Your task to perform on an android device: check storage Image 0: 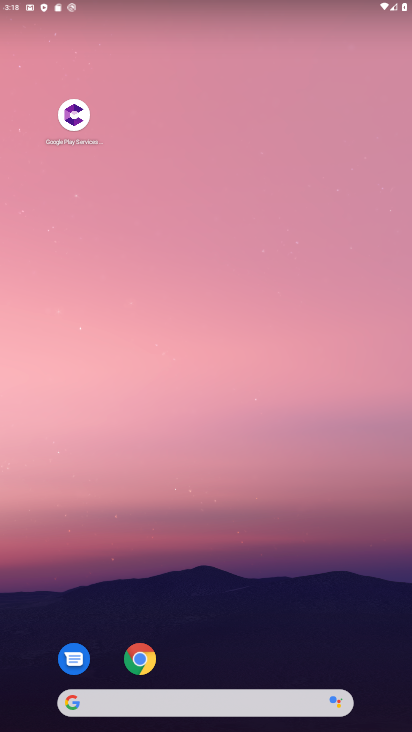
Step 0: drag from (214, 648) to (256, 82)
Your task to perform on an android device: check storage Image 1: 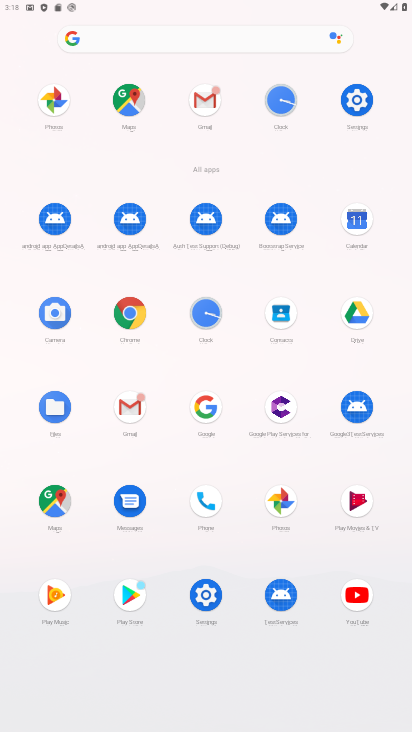
Step 1: click (355, 101)
Your task to perform on an android device: check storage Image 2: 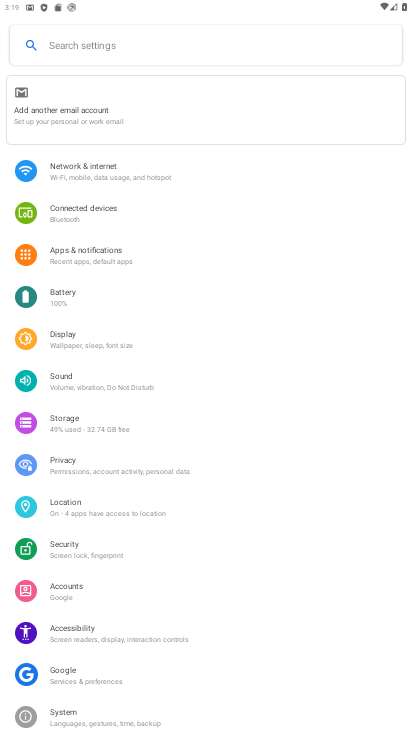
Step 2: click (94, 424)
Your task to perform on an android device: check storage Image 3: 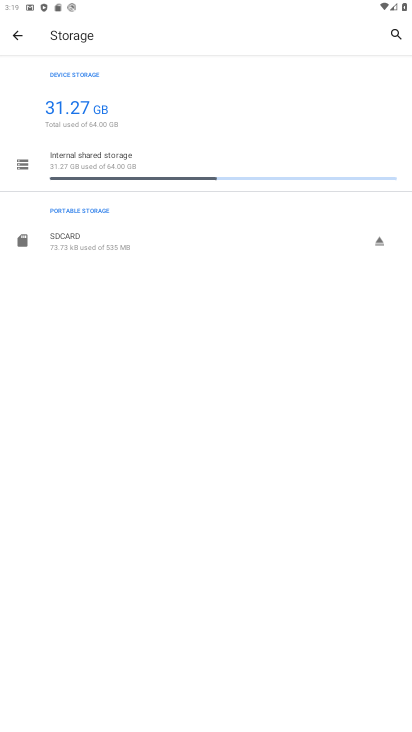
Step 3: task complete